Your task to perform on an android device: Show me popular games on the Play Store Image 0: 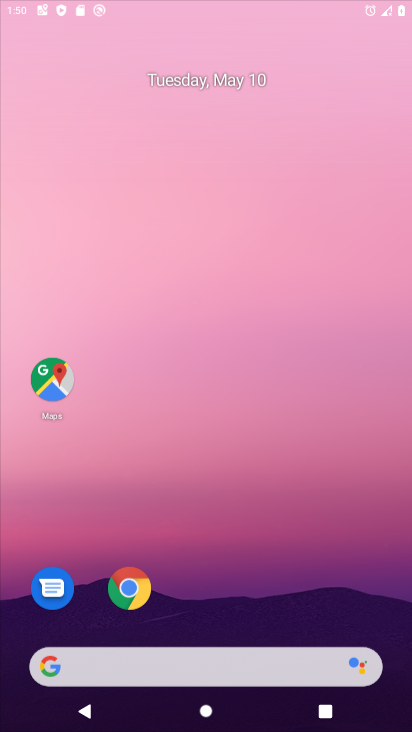
Step 0: click (249, 200)
Your task to perform on an android device: Show me popular games on the Play Store Image 1: 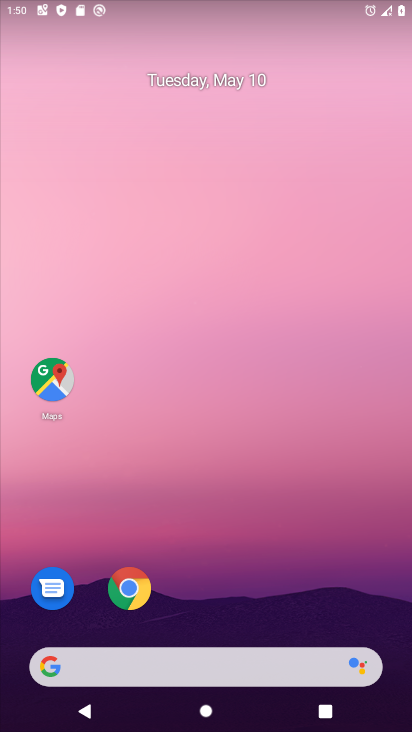
Step 1: drag from (230, 617) to (277, 286)
Your task to perform on an android device: Show me popular games on the Play Store Image 2: 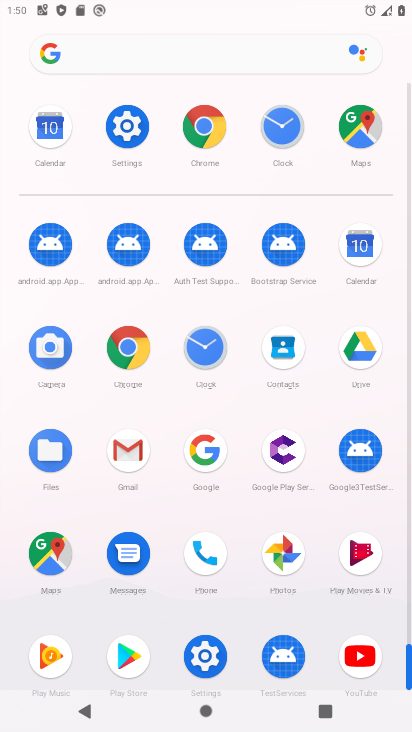
Step 2: drag from (164, 625) to (191, 398)
Your task to perform on an android device: Show me popular games on the Play Store Image 3: 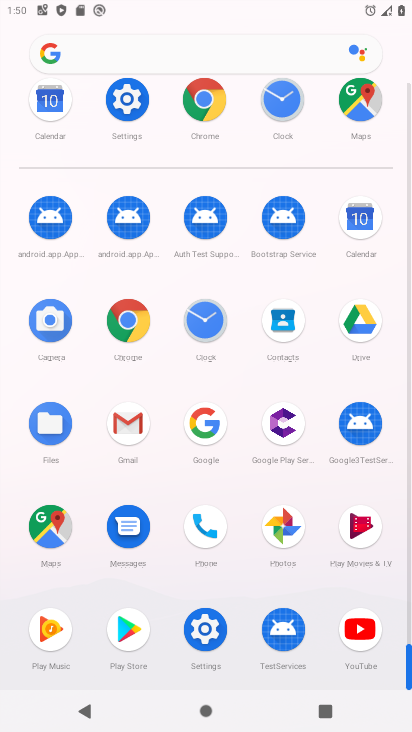
Step 3: click (135, 612)
Your task to perform on an android device: Show me popular games on the Play Store Image 4: 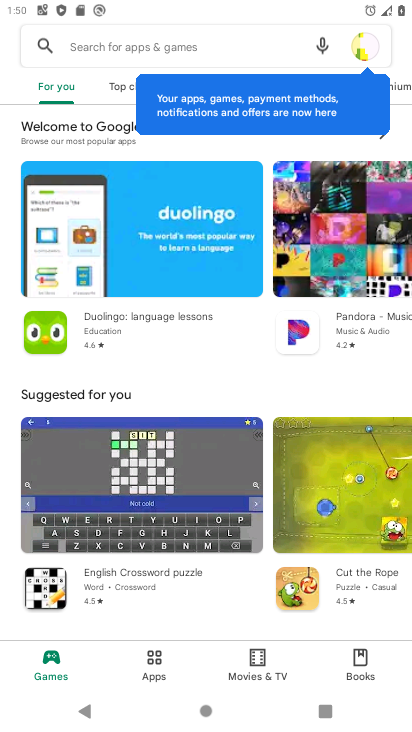
Step 4: click (48, 661)
Your task to perform on an android device: Show me popular games on the Play Store Image 5: 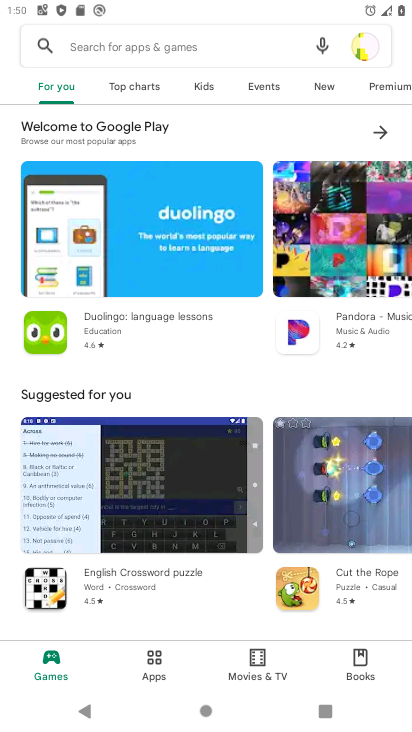
Step 5: drag from (141, 589) to (168, 453)
Your task to perform on an android device: Show me popular games on the Play Store Image 6: 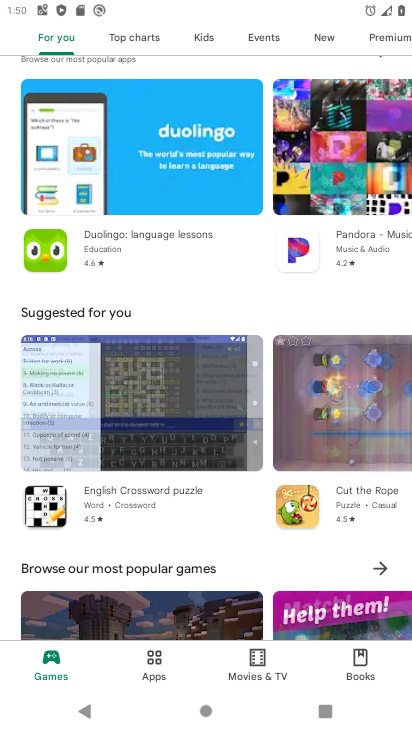
Step 6: click (157, 649)
Your task to perform on an android device: Show me popular games on the Play Store Image 7: 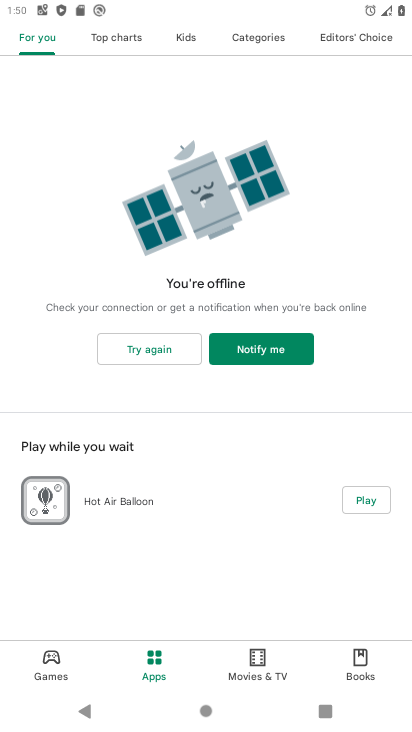
Step 7: task complete